Your task to perform on an android device: turn off sleep mode Image 0: 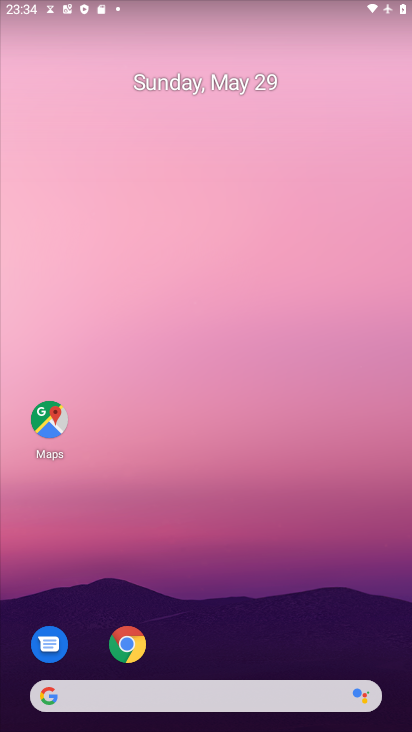
Step 0: drag from (223, 619) to (173, 234)
Your task to perform on an android device: turn off sleep mode Image 1: 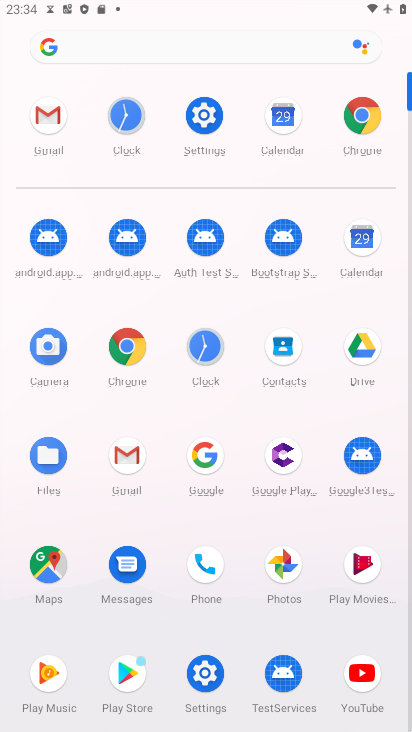
Step 1: click (199, 118)
Your task to perform on an android device: turn off sleep mode Image 2: 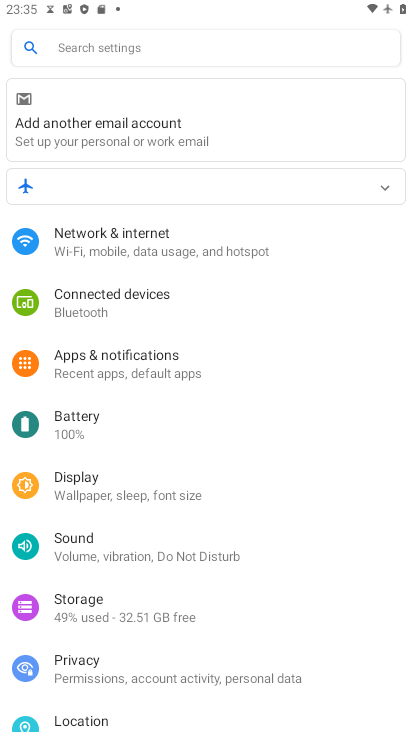
Step 2: task complete